Your task to perform on an android device: turn pop-ups off in chrome Image 0: 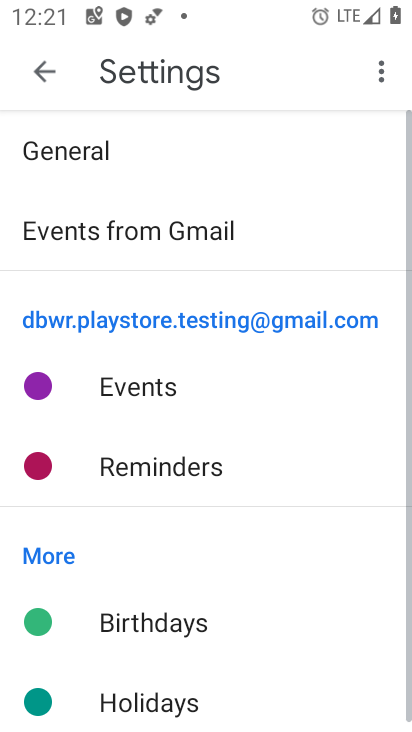
Step 0: press home button
Your task to perform on an android device: turn pop-ups off in chrome Image 1: 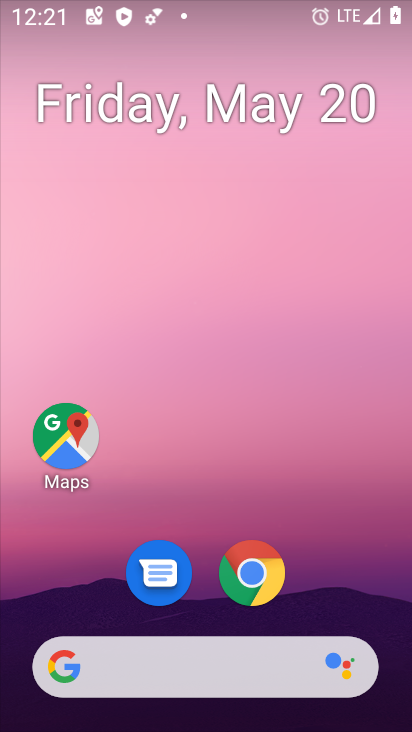
Step 1: drag from (317, 582) to (326, 107)
Your task to perform on an android device: turn pop-ups off in chrome Image 2: 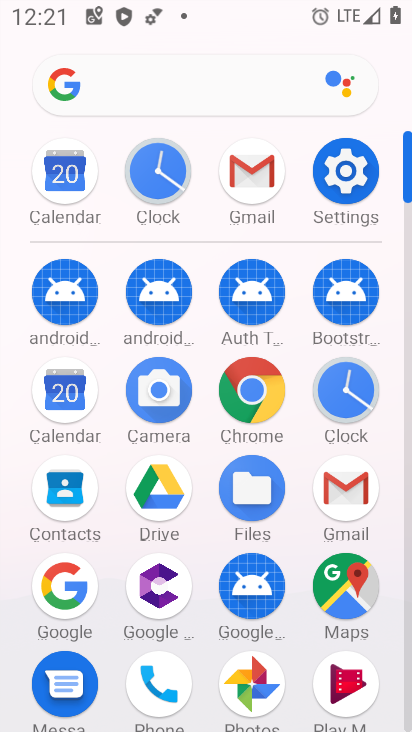
Step 2: click (262, 393)
Your task to perform on an android device: turn pop-ups off in chrome Image 3: 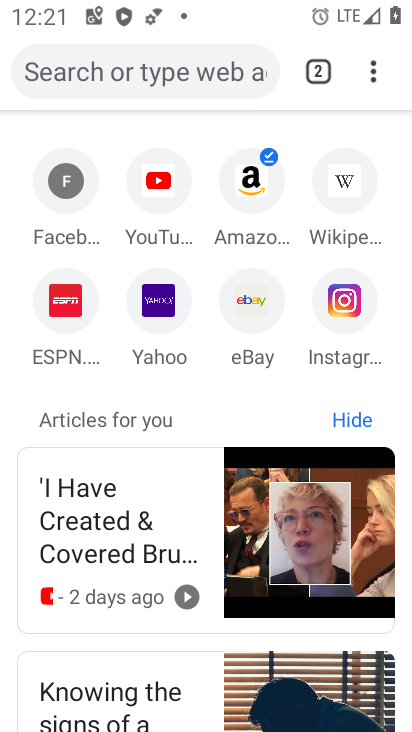
Step 3: click (367, 72)
Your task to perform on an android device: turn pop-ups off in chrome Image 4: 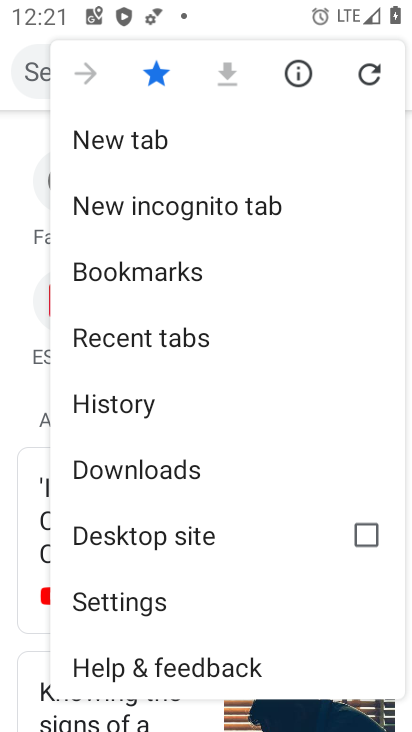
Step 4: drag from (241, 568) to (217, 305)
Your task to perform on an android device: turn pop-ups off in chrome Image 5: 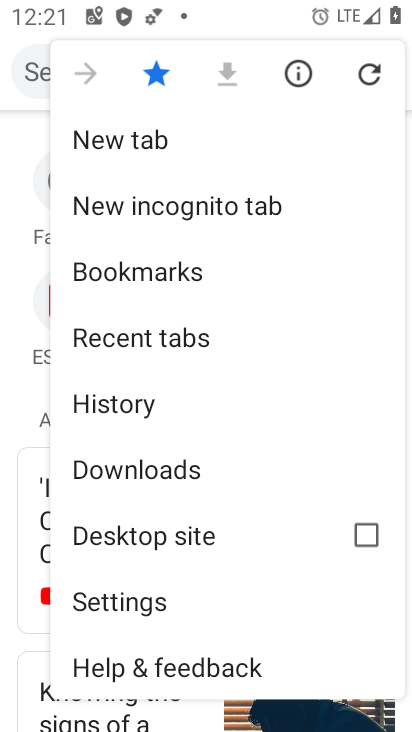
Step 5: click (145, 599)
Your task to perform on an android device: turn pop-ups off in chrome Image 6: 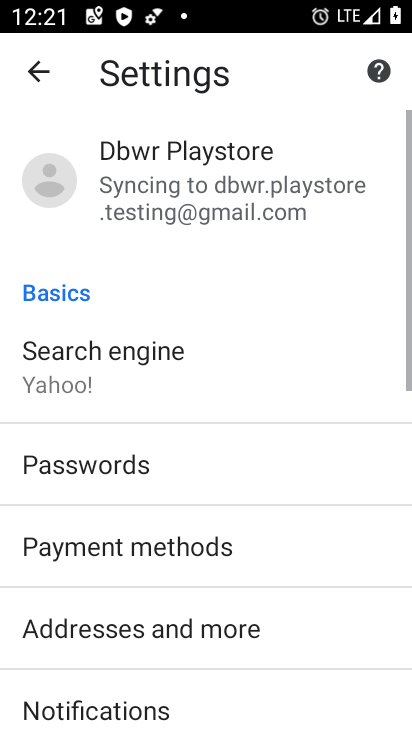
Step 6: drag from (244, 578) to (250, 98)
Your task to perform on an android device: turn pop-ups off in chrome Image 7: 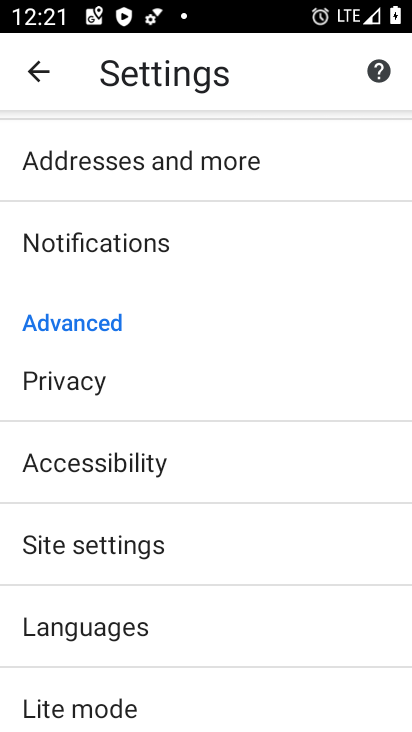
Step 7: click (123, 539)
Your task to perform on an android device: turn pop-ups off in chrome Image 8: 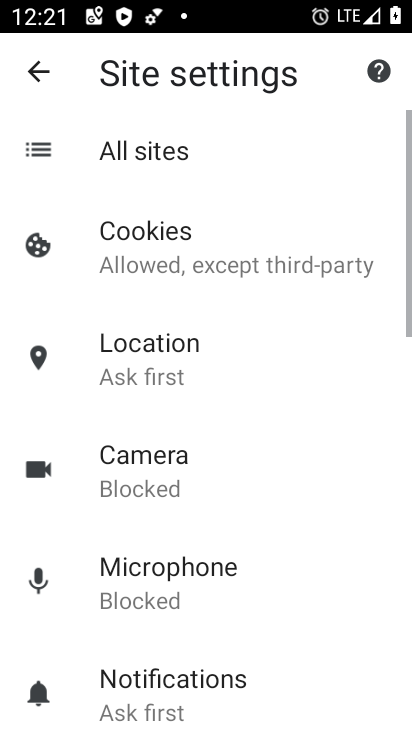
Step 8: drag from (232, 556) to (230, 138)
Your task to perform on an android device: turn pop-ups off in chrome Image 9: 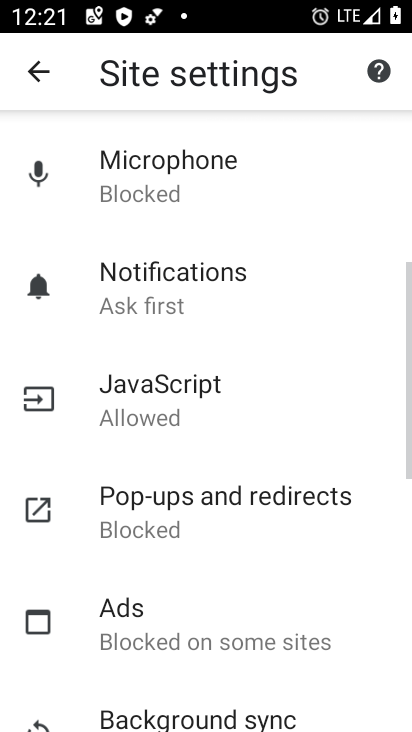
Step 9: click (186, 527)
Your task to perform on an android device: turn pop-ups off in chrome Image 10: 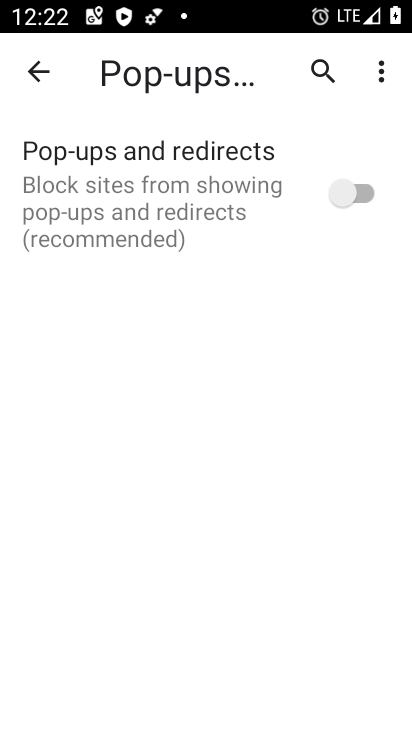
Step 10: task complete